Your task to perform on an android device: open app "HBO Max: Stream TV & Movies" (install if not already installed) Image 0: 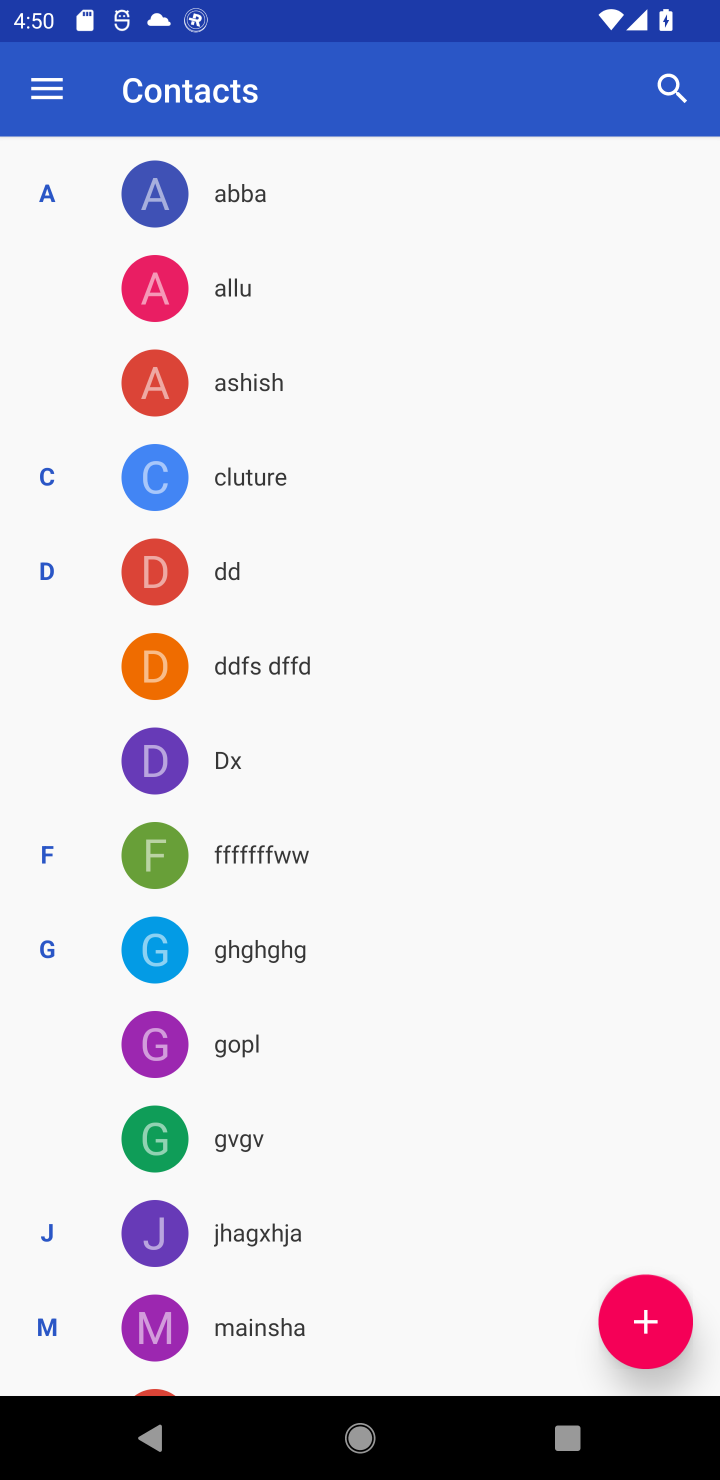
Step 0: press home button
Your task to perform on an android device: open app "HBO Max: Stream TV & Movies" (install if not already installed) Image 1: 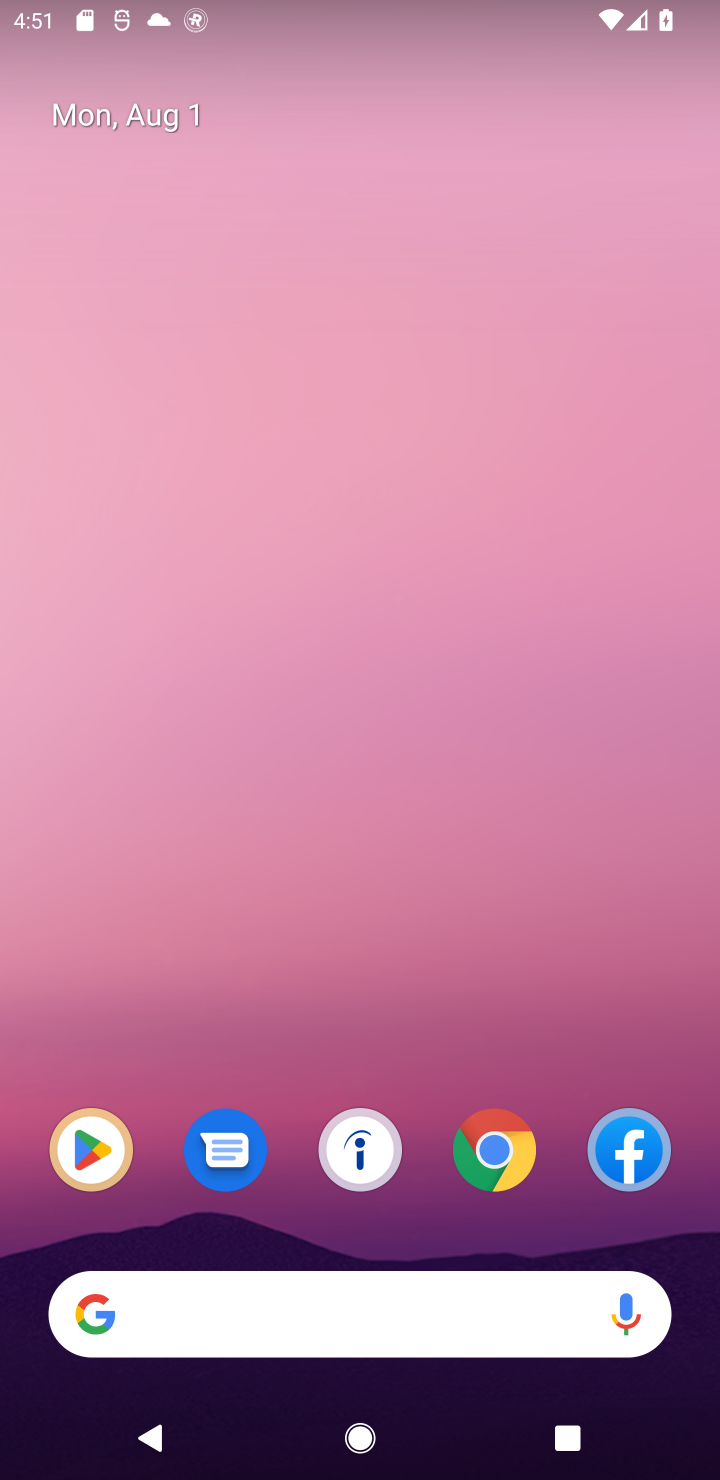
Step 1: click (74, 1131)
Your task to perform on an android device: open app "HBO Max: Stream TV & Movies" (install if not already installed) Image 2: 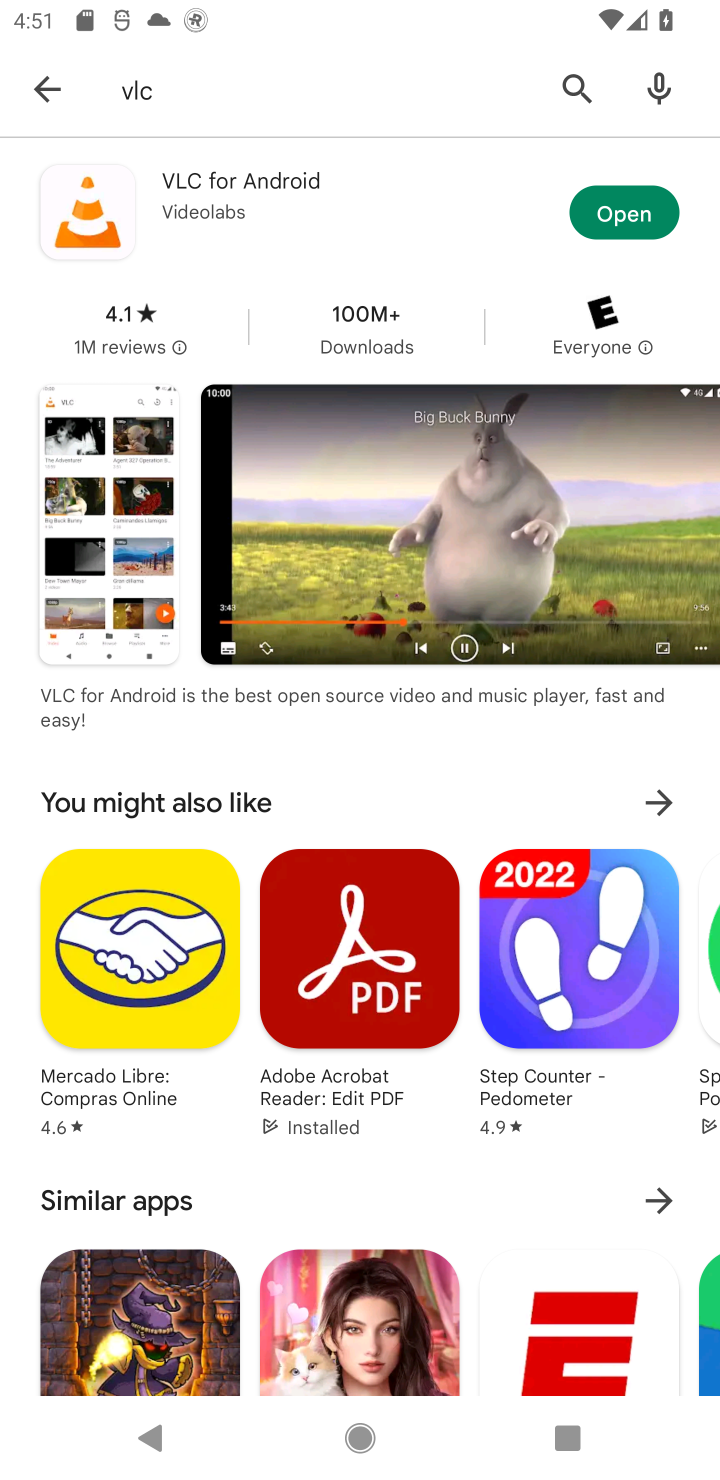
Step 2: click (572, 97)
Your task to perform on an android device: open app "HBO Max: Stream TV & Movies" (install if not already installed) Image 3: 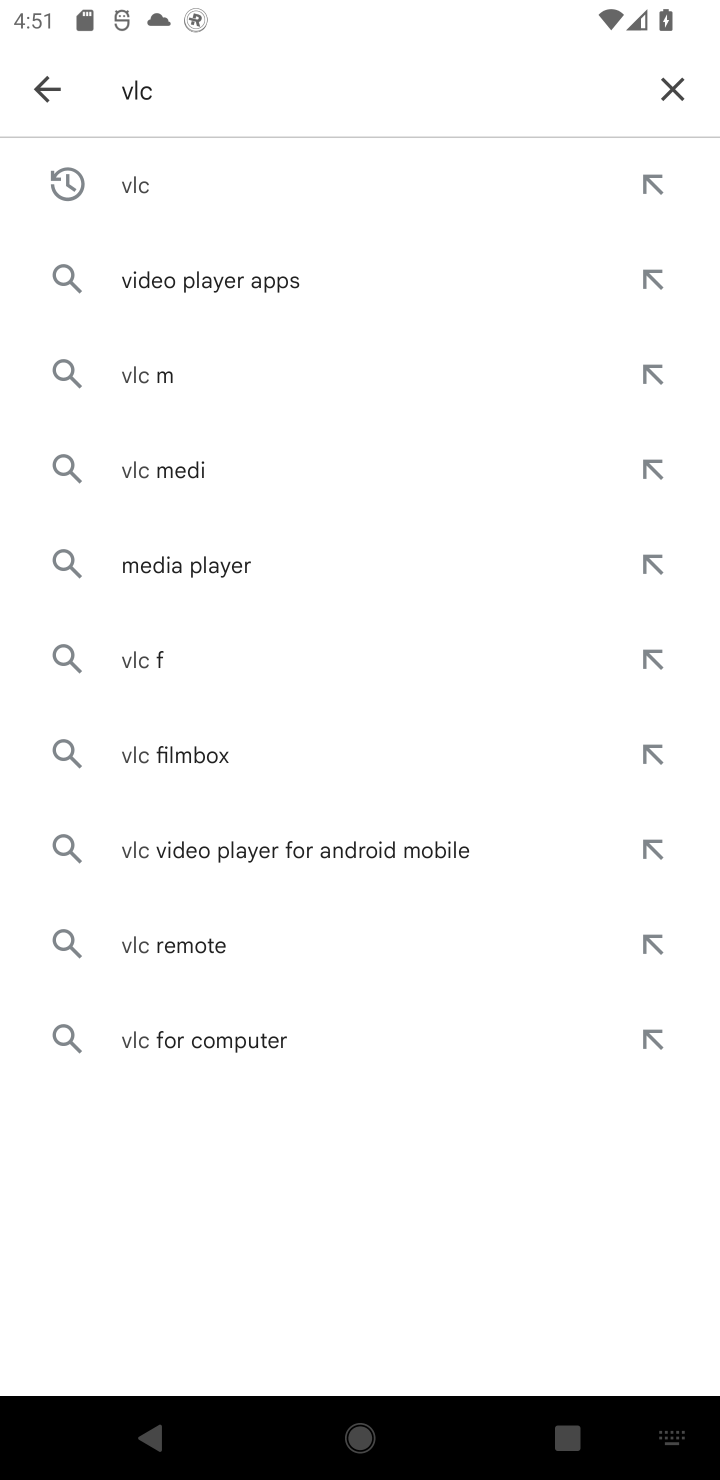
Step 3: click (655, 97)
Your task to perform on an android device: open app "HBO Max: Stream TV & Movies" (install if not already installed) Image 4: 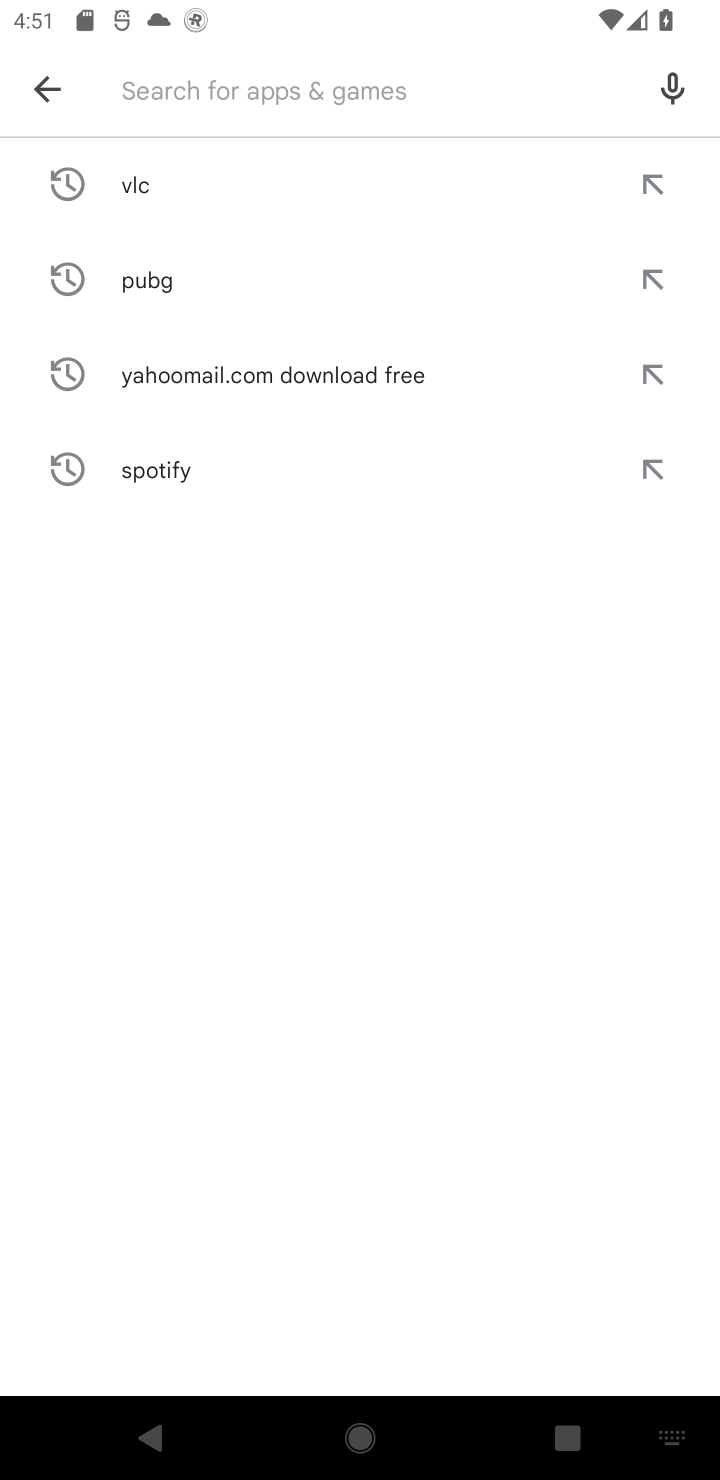
Step 4: type "hbo"
Your task to perform on an android device: open app "HBO Max: Stream TV & Movies" (install if not already installed) Image 5: 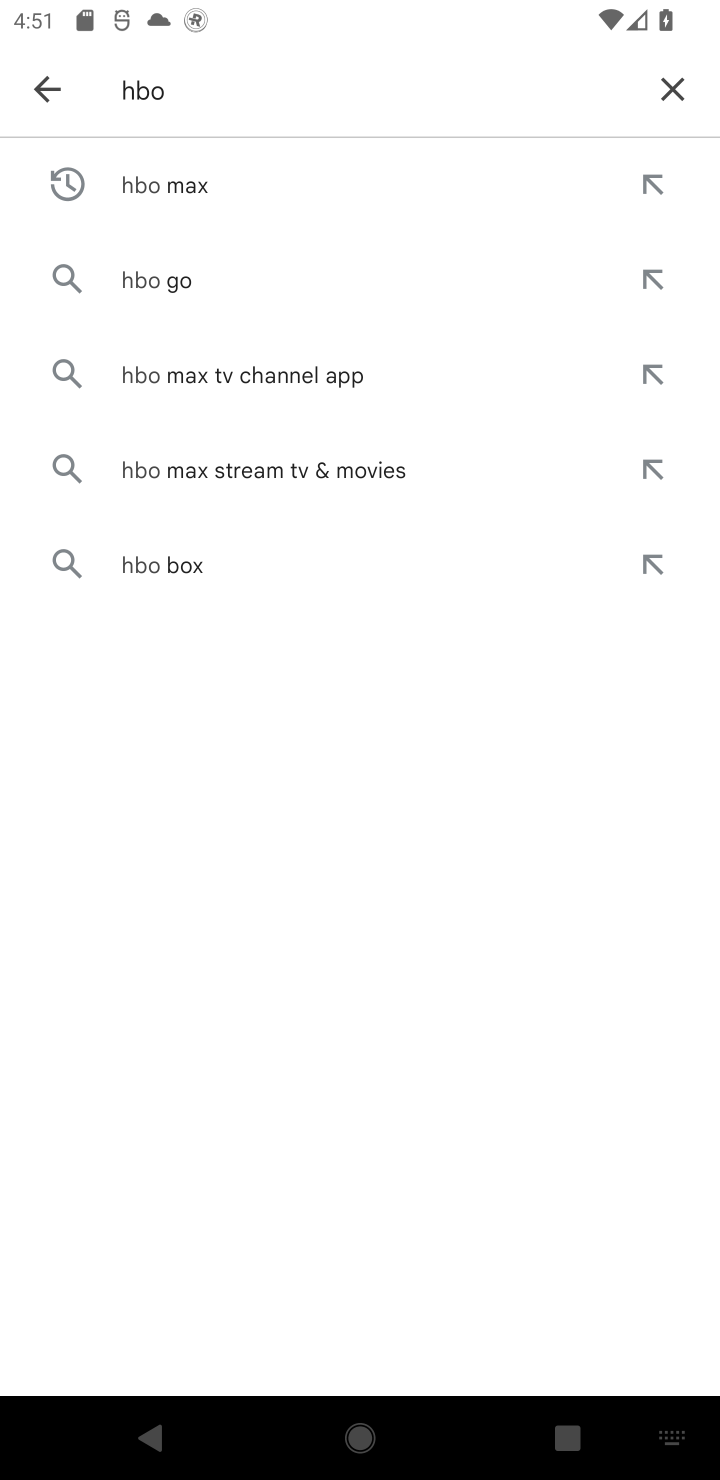
Step 5: click (300, 203)
Your task to perform on an android device: open app "HBO Max: Stream TV & Movies" (install if not already installed) Image 6: 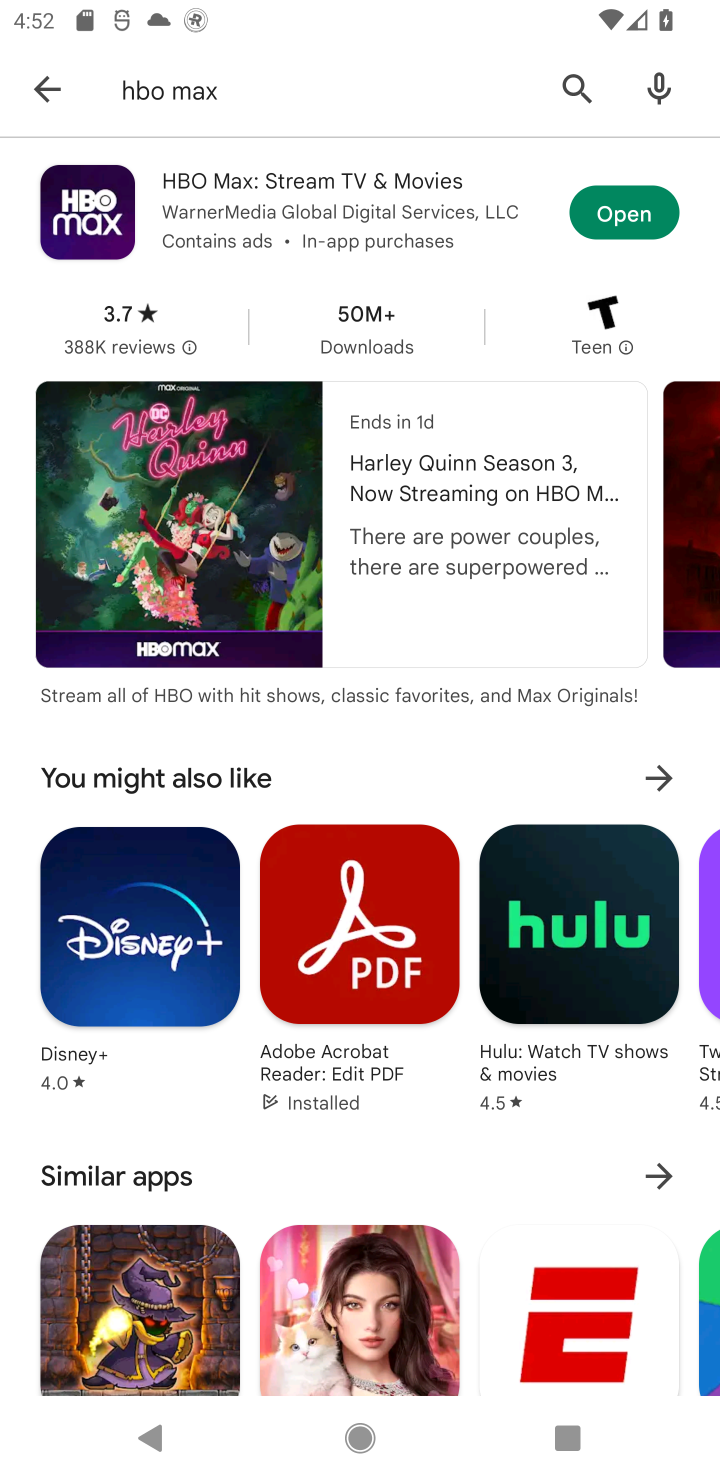
Step 6: click (612, 213)
Your task to perform on an android device: open app "HBO Max: Stream TV & Movies" (install if not already installed) Image 7: 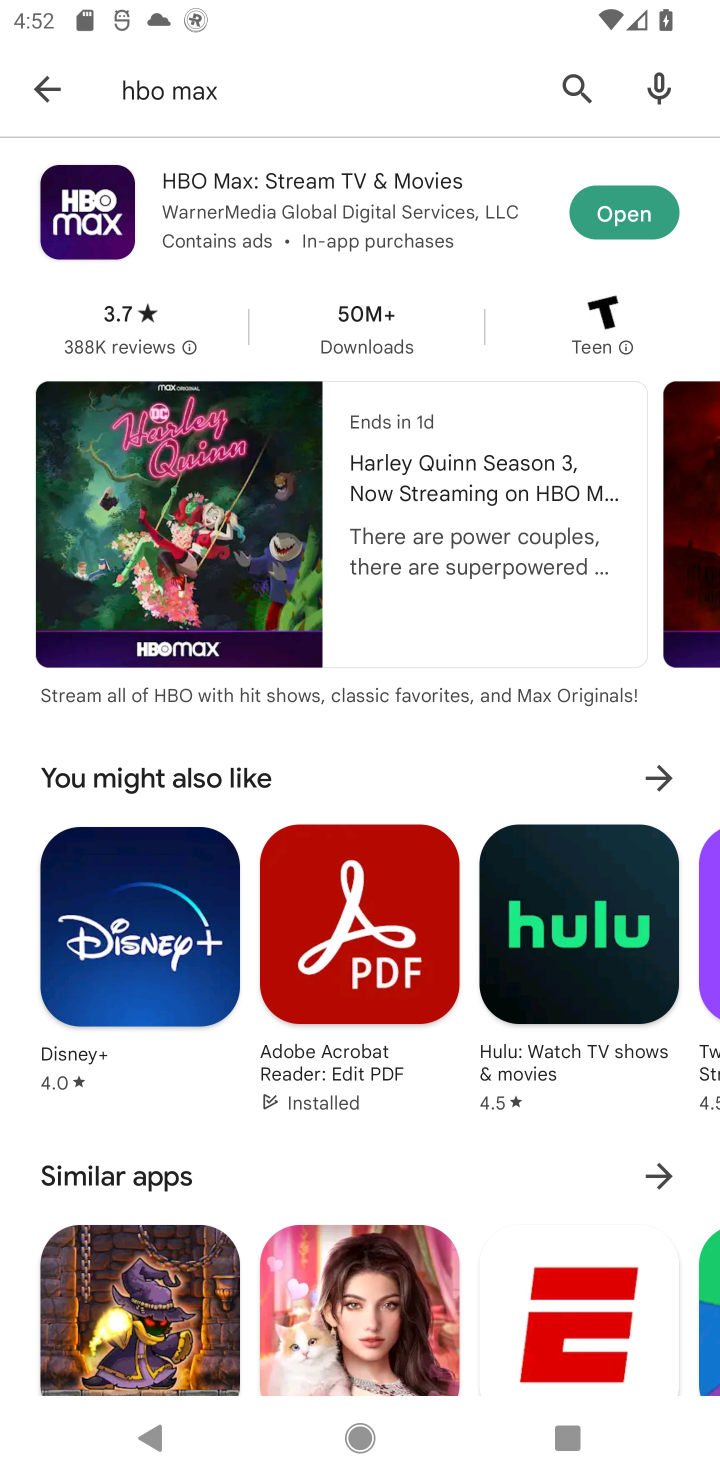
Step 7: task complete